Your task to perform on an android device: check out phone information Image 0: 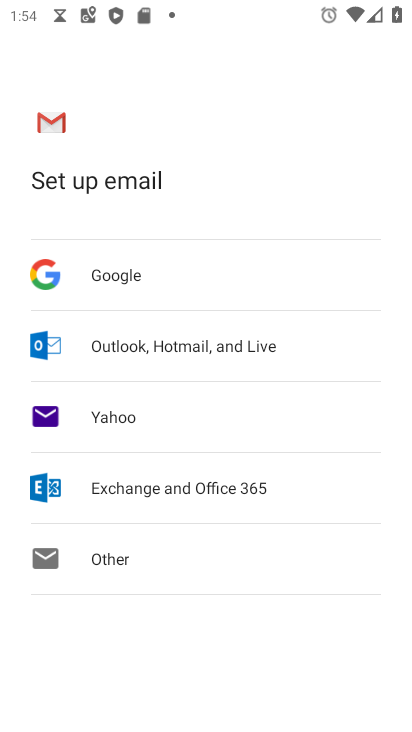
Step 0: press home button
Your task to perform on an android device: check out phone information Image 1: 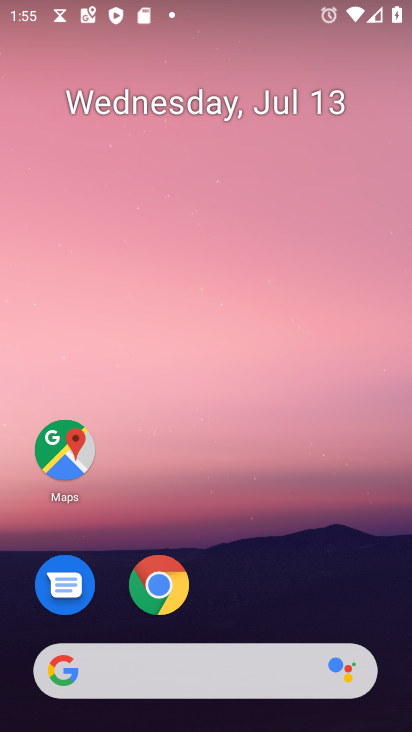
Step 1: drag from (216, 672) to (264, 46)
Your task to perform on an android device: check out phone information Image 2: 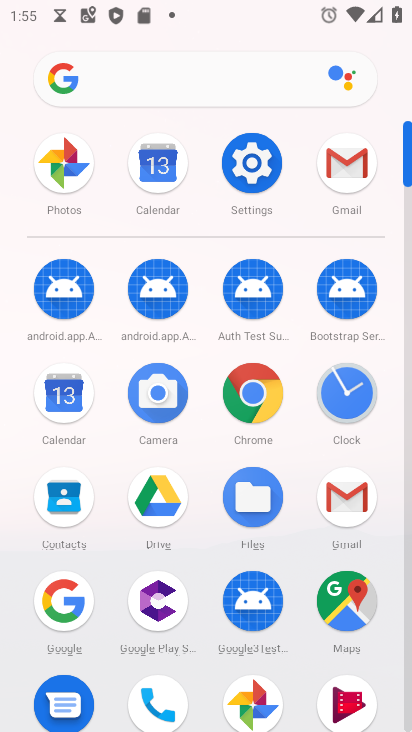
Step 2: click (242, 177)
Your task to perform on an android device: check out phone information Image 3: 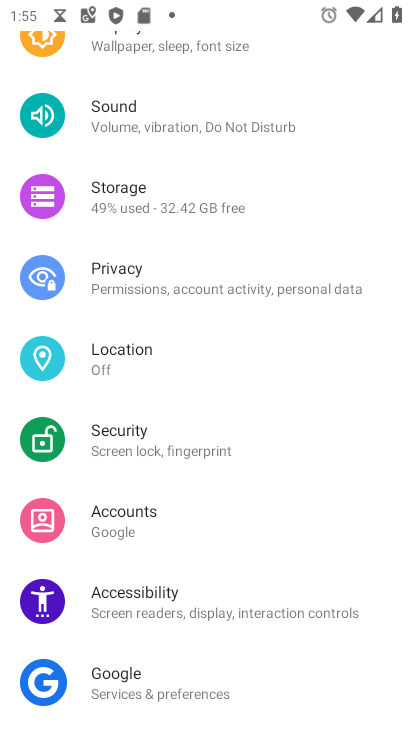
Step 3: drag from (248, 661) to (282, 145)
Your task to perform on an android device: check out phone information Image 4: 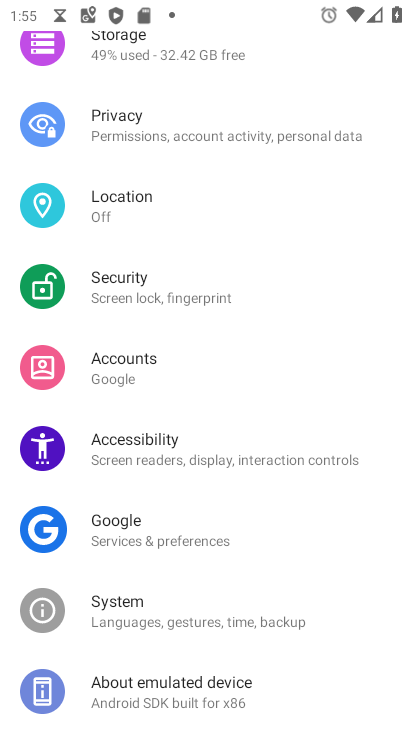
Step 4: click (195, 698)
Your task to perform on an android device: check out phone information Image 5: 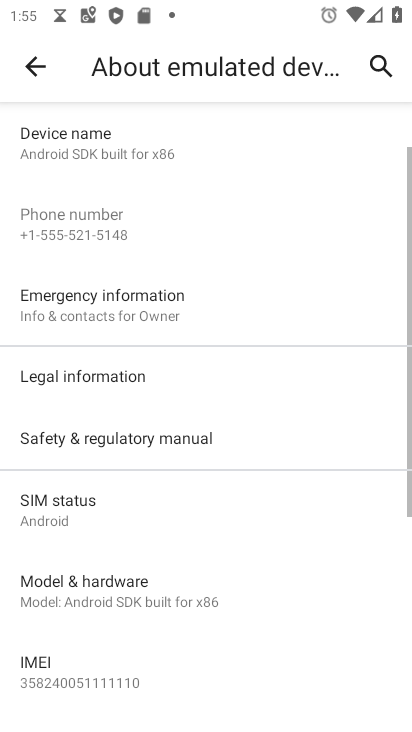
Step 5: task complete